Your task to perform on an android device: Go to privacy settings Image 0: 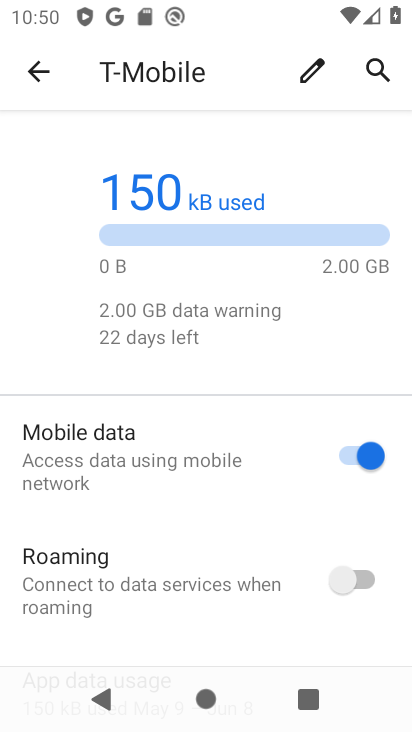
Step 0: press home button
Your task to perform on an android device: Go to privacy settings Image 1: 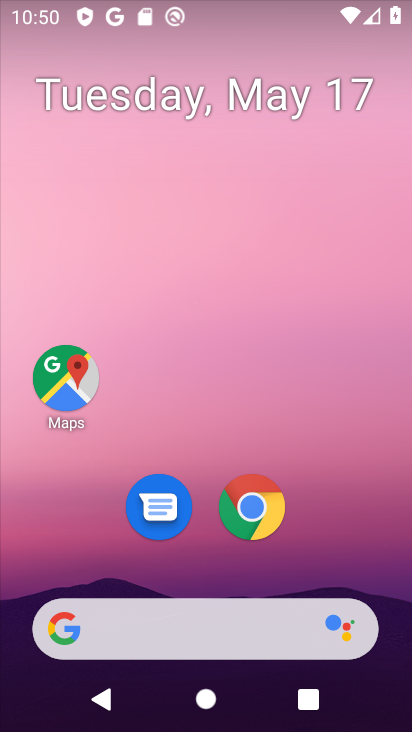
Step 1: click (264, 520)
Your task to perform on an android device: Go to privacy settings Image 2: 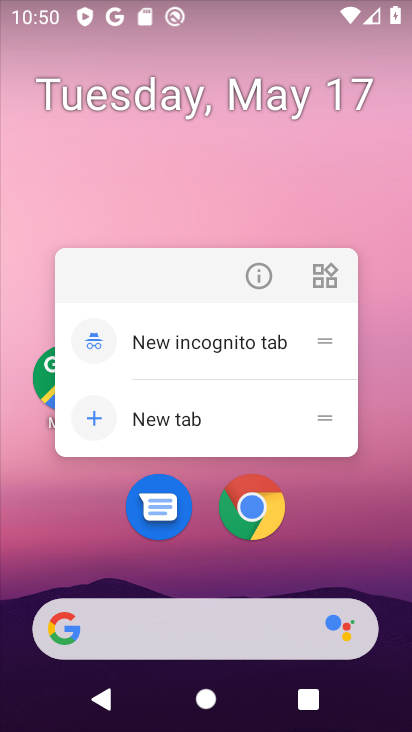
Step 2: click (257, 507)
Your task to perform on an android device: Go to privacy settings Image 3: 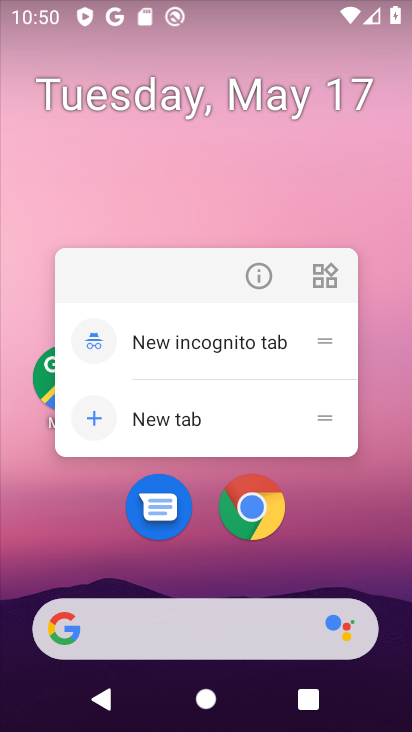
Step 3: click (251, 517)
Your task to perform on an android device: Go to privacy settings Image 4: 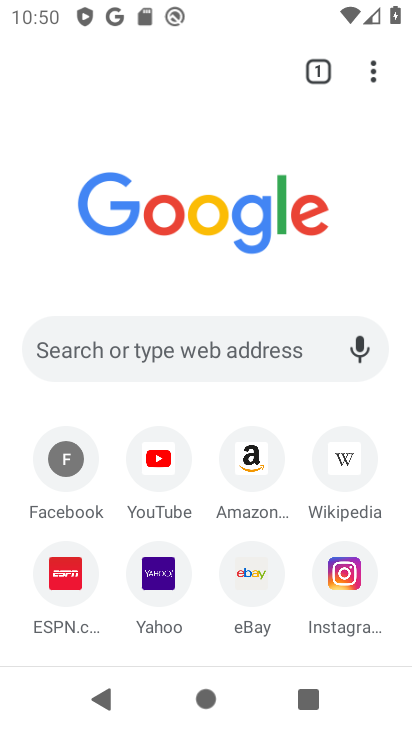
Step 4: drag from (379, 72) to (231, 518)
Your task to perform on an android device: Go to privacy settings Image 5: 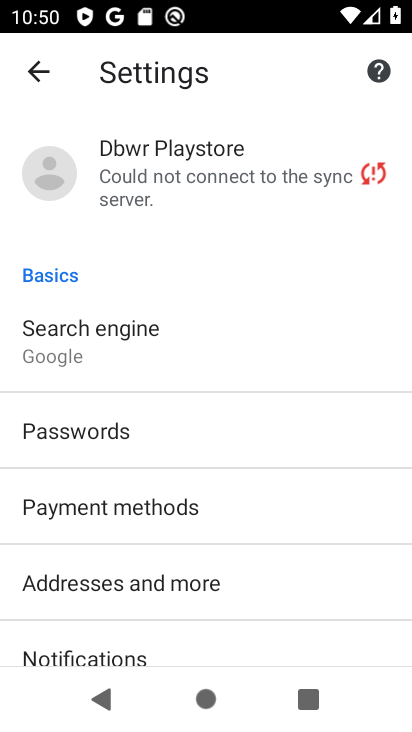
Step 5: drag from (190, 607) to (253, 198)
Your task to perform on an android device: Go to privacy settings Image 6: 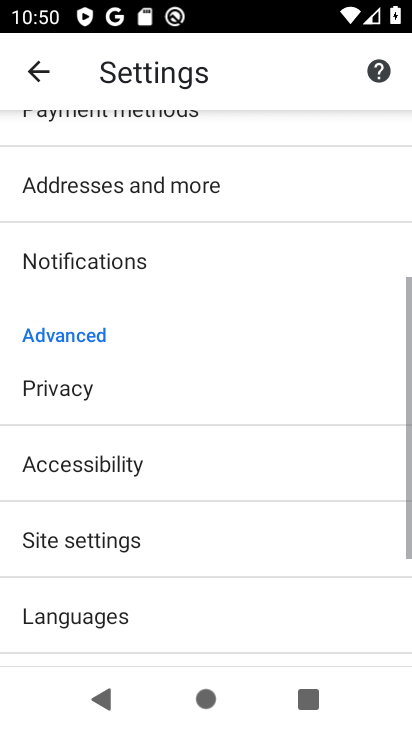
Step 6: drag from (176, 676) to (219, 306)
Your task to perform on an android device: Go to privacy settings Image 7: 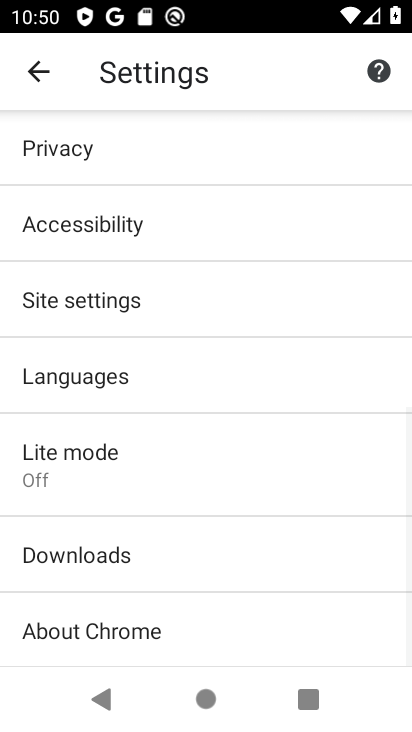
Step 7: click (134, 147)
Your task to perform on an android device: Go to privacy settings Image 8: 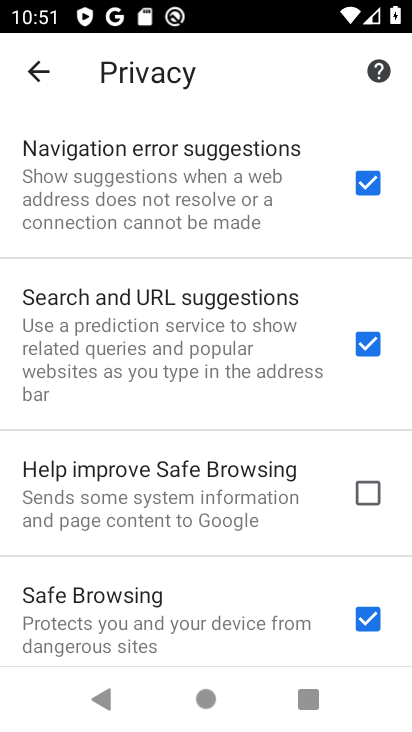
Step 8: task complete